Your task to perform on an android device: Open wifi settings Image 0: 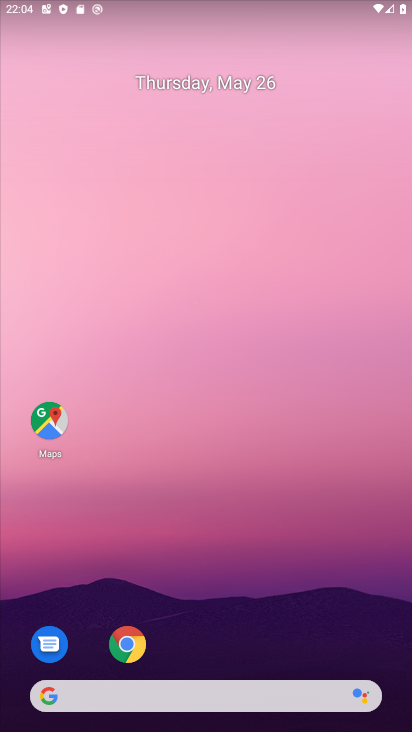
Step 0: drag from (344, 652) to (387, 203)
Your task to perform on an android device: Open wifi settings Image 1: 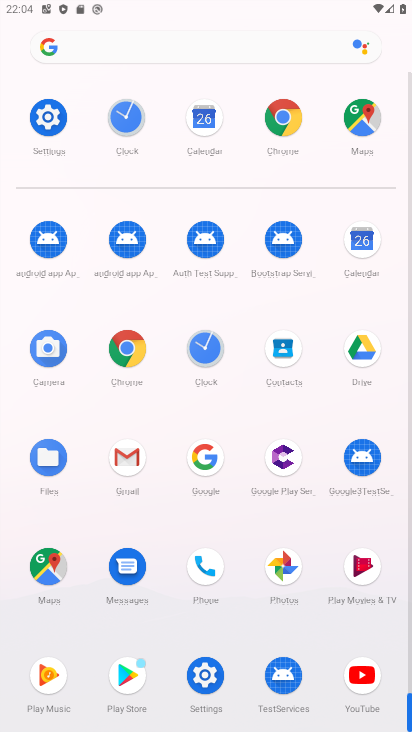
Step 1: click (44, 119)
Your task to perform on an android device: Open wifi settings Image 2: 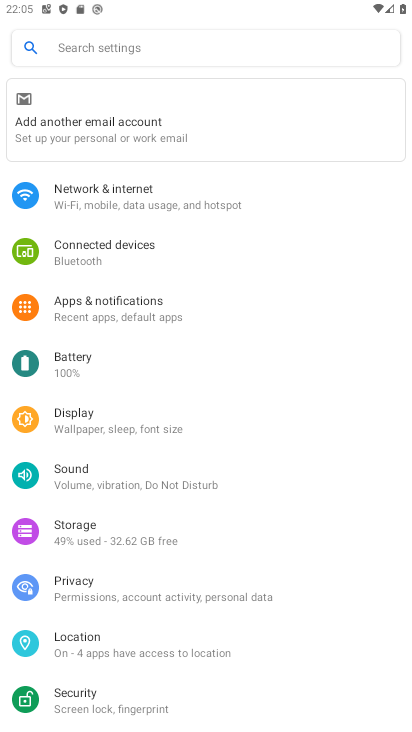
Step 2: click (195, 194)
Your task to perform on an android device: Open wifi settings Image 3: 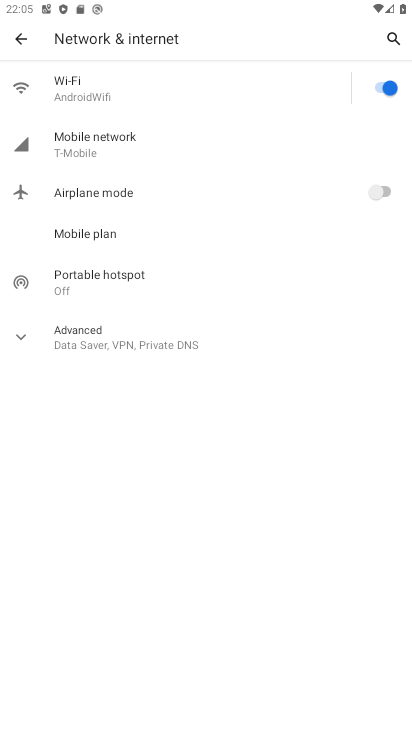
Step 3: click (106, 88)
Your task to perform on an android device: Open wifi settings Image 4: 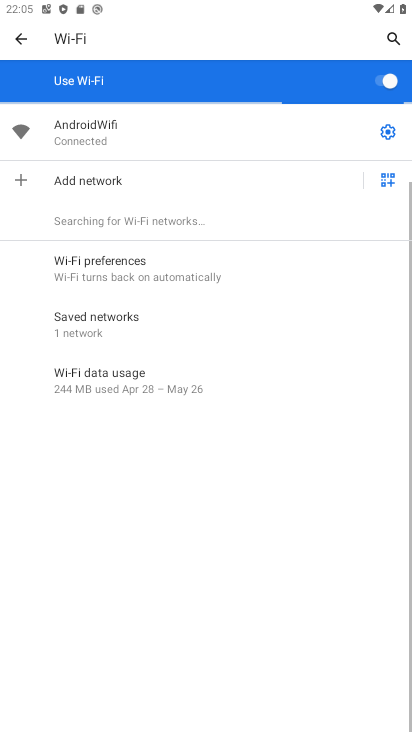
Step 4: task complete